Your task to perform on an android device: Clear all items from cart on target.com. Add razer blade to the cart on target.com, then select checkout. Image 0: 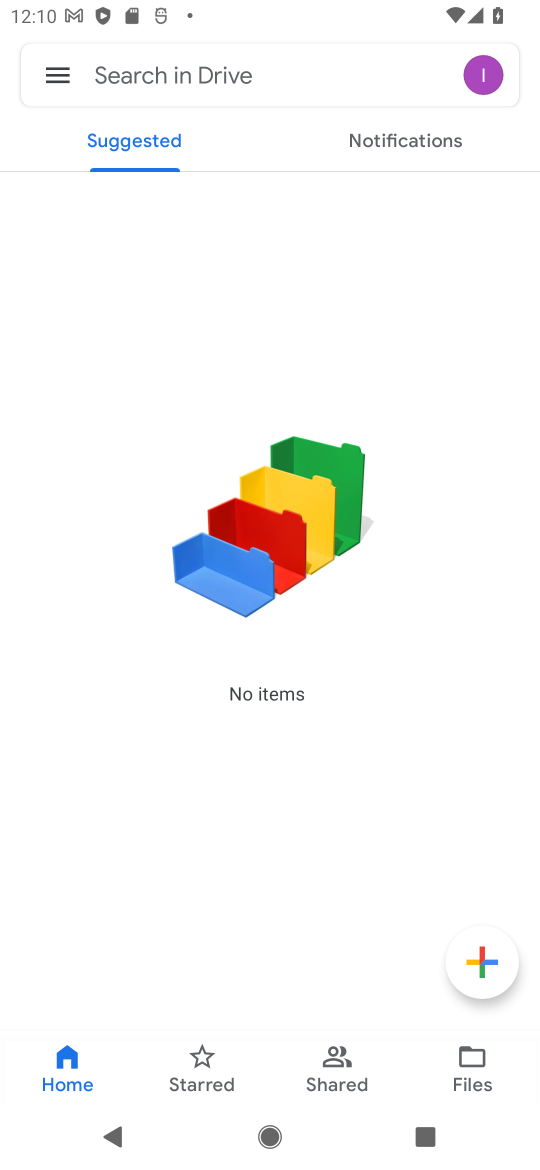
Step 0: press home button
Your task to perform on an android device: Clear all items from cart on target.com. Add razer blade to the cart on target.com, then select checkout. Image 1: 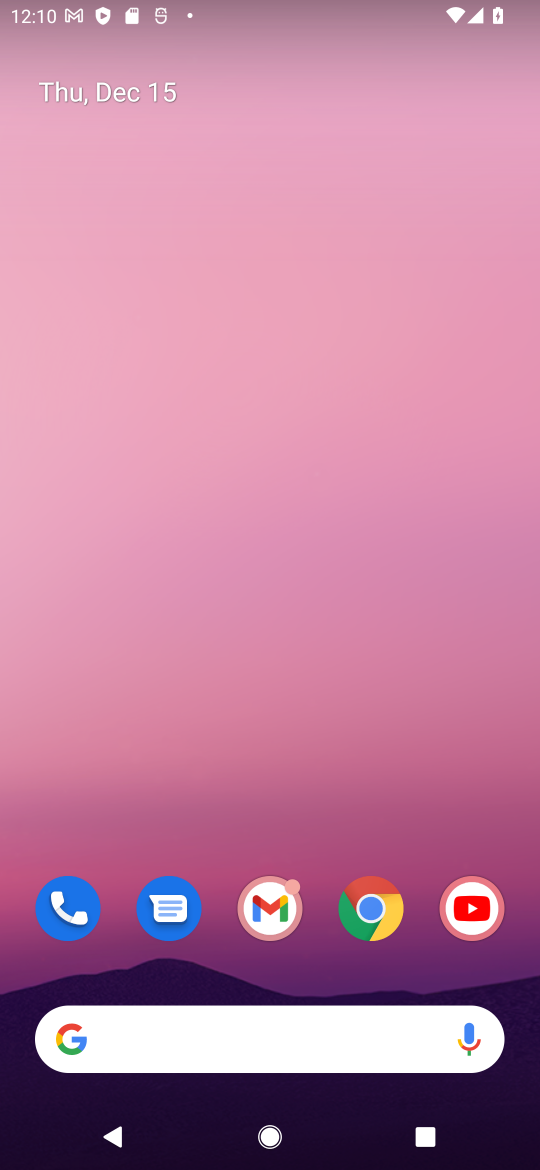
Step 1: click (383, 910)
Your task to perform on an android device: Clear all items from cart on target.com. Add razer blade to the cart on target.com, then select checkout. Image 2: 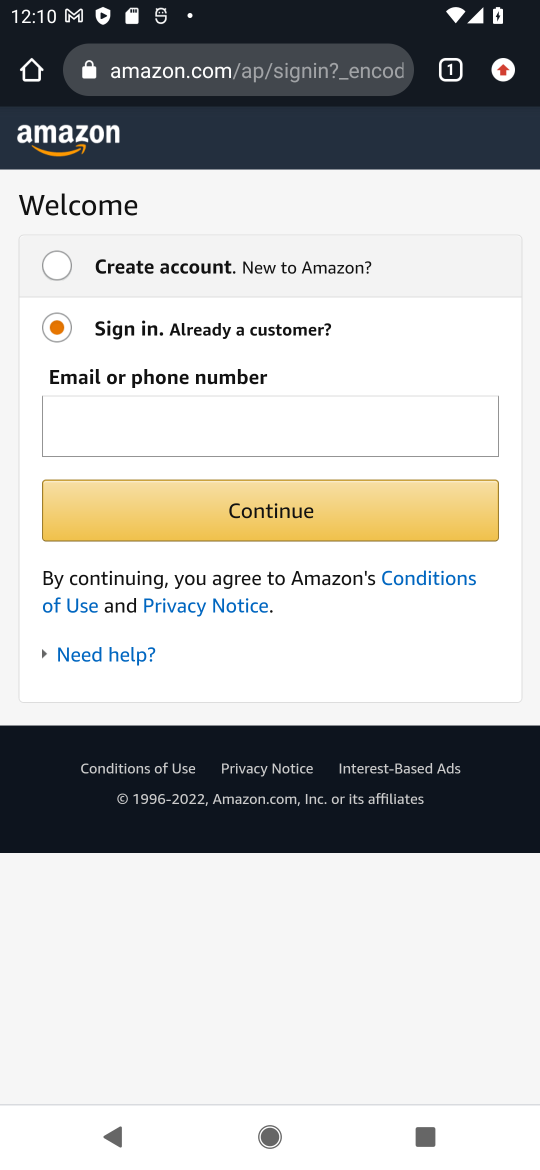
Step 2: click (226, 76)
Your task to perform on an android device: Clear all items from cart on target.com. Add razer blade to the cart on target.com, then select checkout. Image 3: 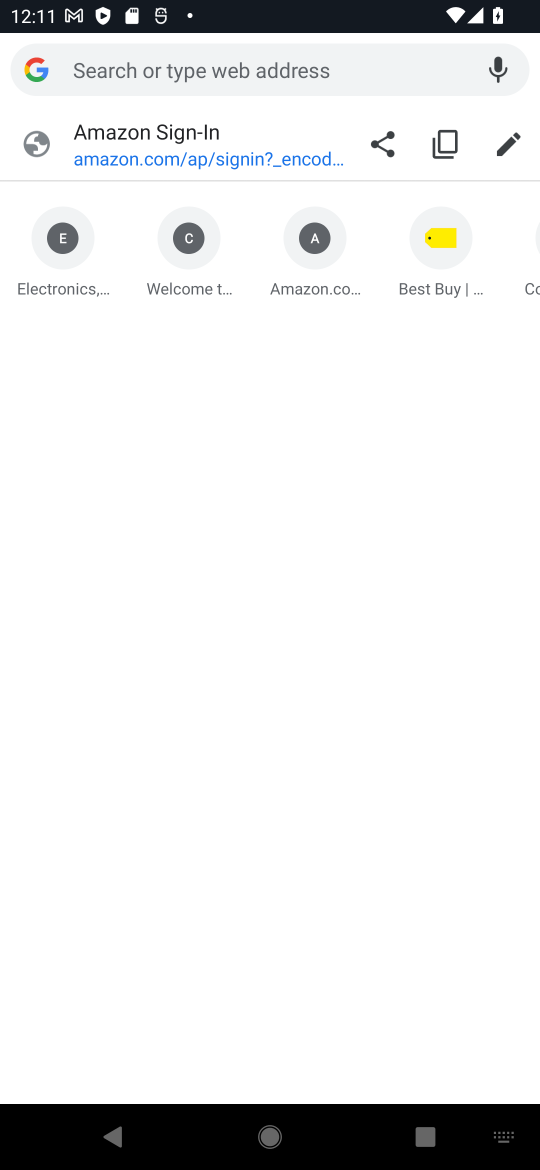
Step 3: type "target.com"
Your task to perform on an android device: Clear all items from cart on target.com. Add razer blade to the cart on target.com, then select checkout. Image 4: 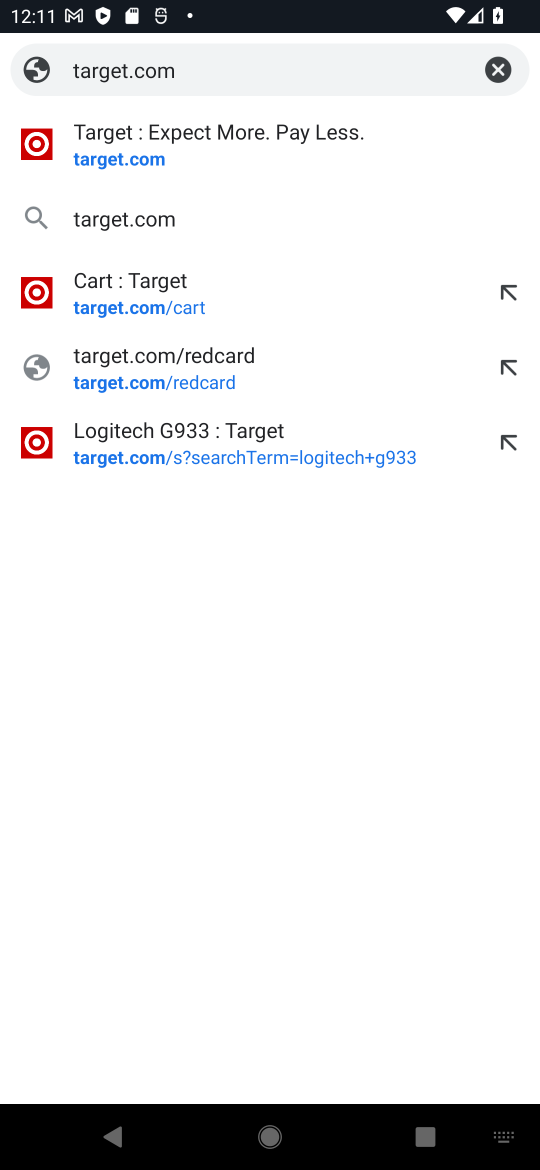
Step 4: click (81, 167)
Your task to perform on an android device: Clear all items from cart on target.com. Add razer blade to the cart on target.com, then select checkout. Image 5: 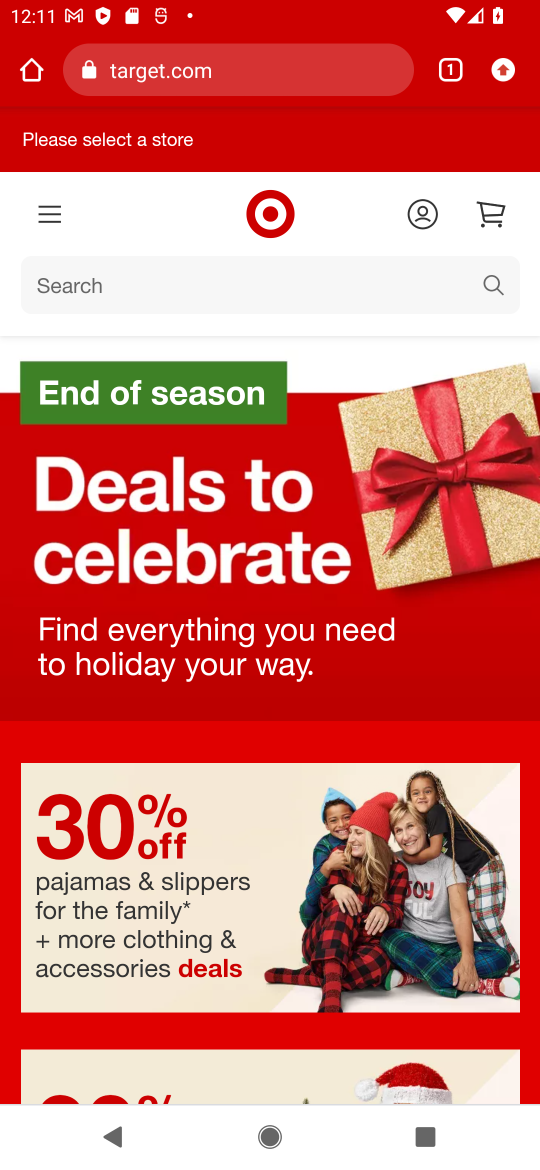
Step 5: click (495, 229)
Your task to perform on an android device: Clear all items from cart on target.com. Add razer blade to the cart on target.com, then select checkout. Image 6: 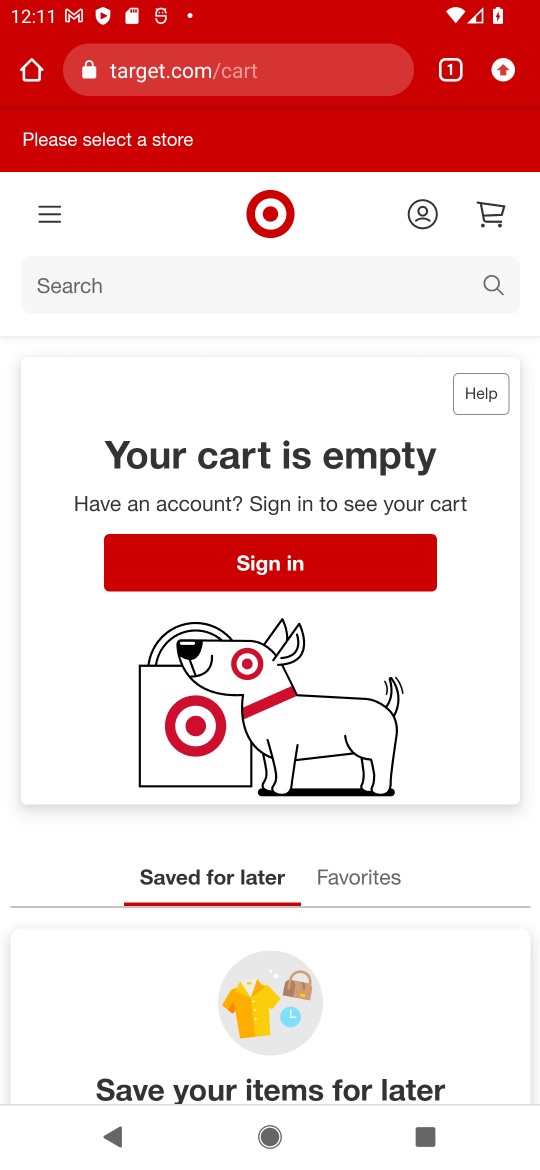
Step 6: click (43, 282)
Your task to perform on an android device: Clear all items from cart on target.com. Add razer blade to the cart on target.com, then select checkout. Image 7: 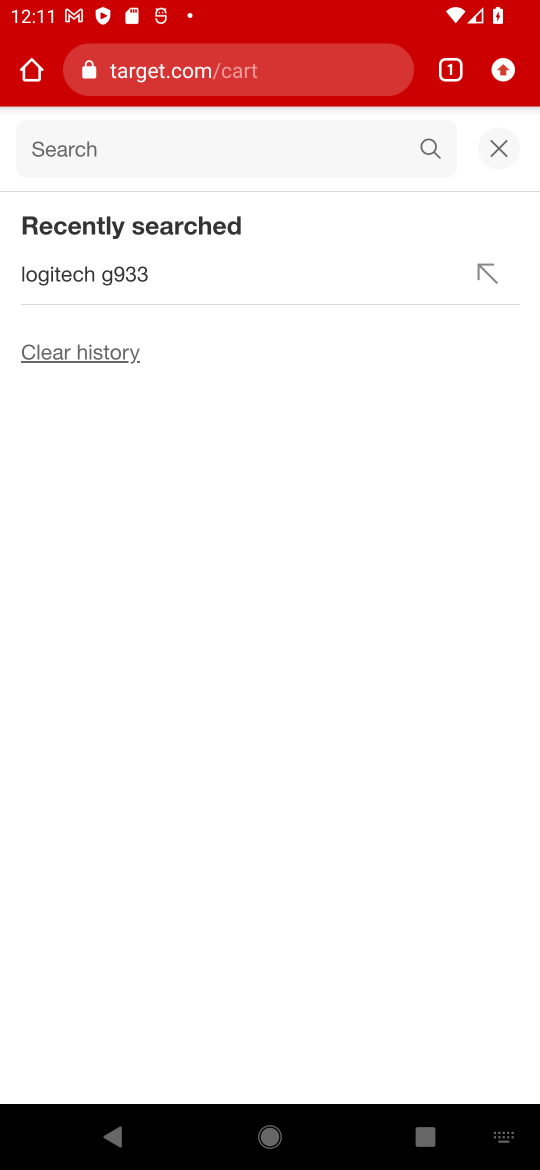
Step 7: type " razer blade "
Your task to perform on an android device: Clear all items from cart on target.com. Add razer blade to the cart on target.com, then select checkout. Image 8: 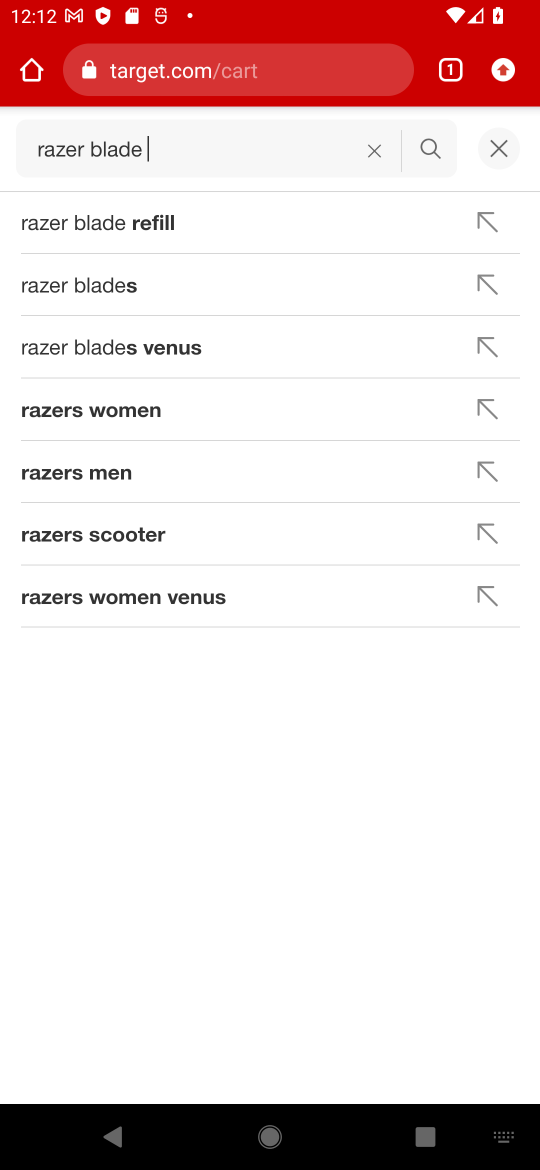
Step 8: click (430, 145)
Your task to perform on an android device: Clear all items from cart on target.com. Add razer blade to the cart on target.com, then select checkout. Image 9: 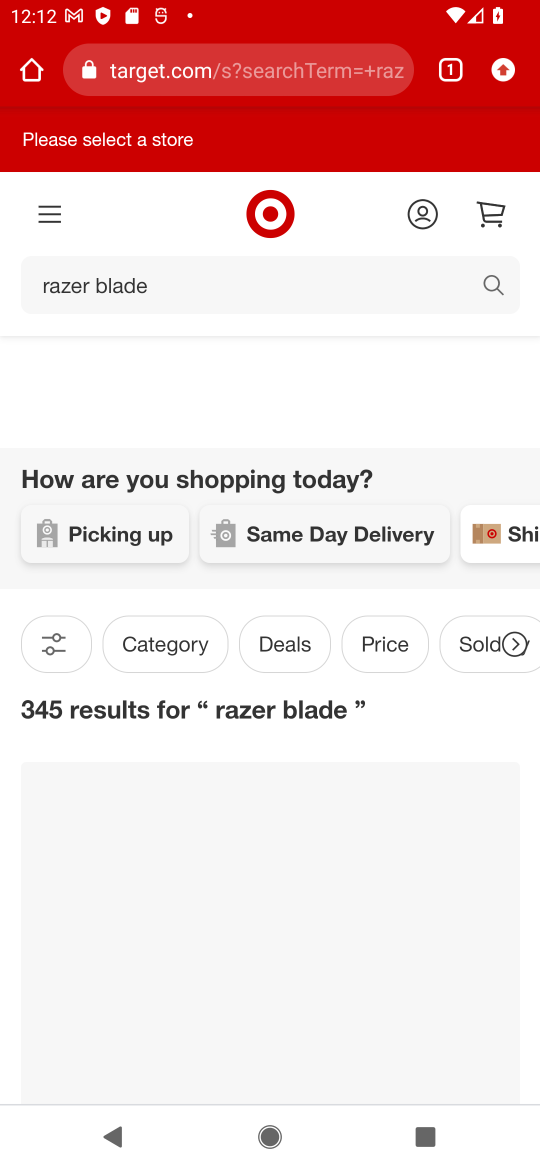
Step 9: task complete